Your task to perform on an android device: Open calendar and show me the second week of next month Image 0: 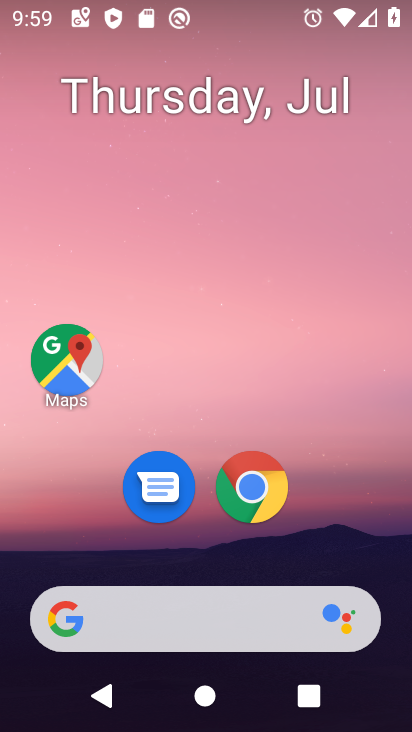
Step 0: drag from (247, 560) to (256, 146)
Your task to perform on an android device: Open calendar and show me the second week of next month Image 1: 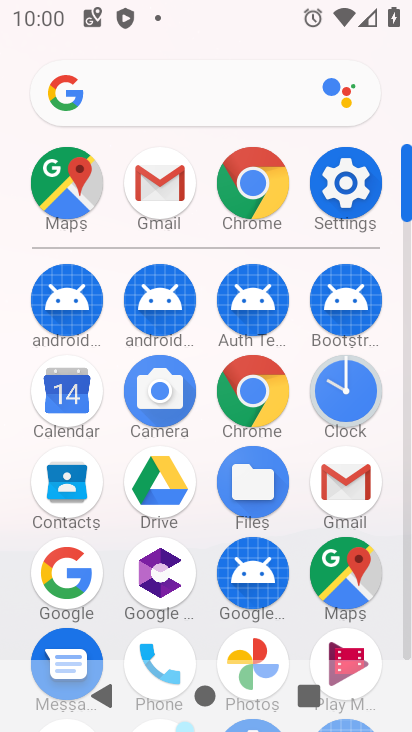
Step 1: click (73, 399)
Your task to perform on an android device: Open calendar and show me the second week of next month Image 2: 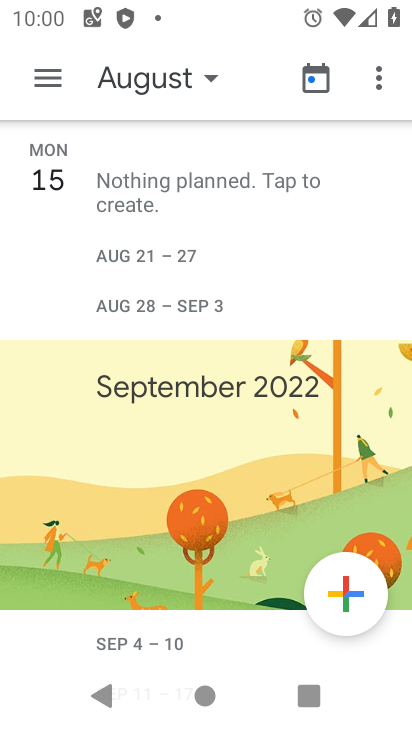
Step 2: click (202, 87)
Your task to perform on an android device: Open calendar and show me the second week of next month Image 3: 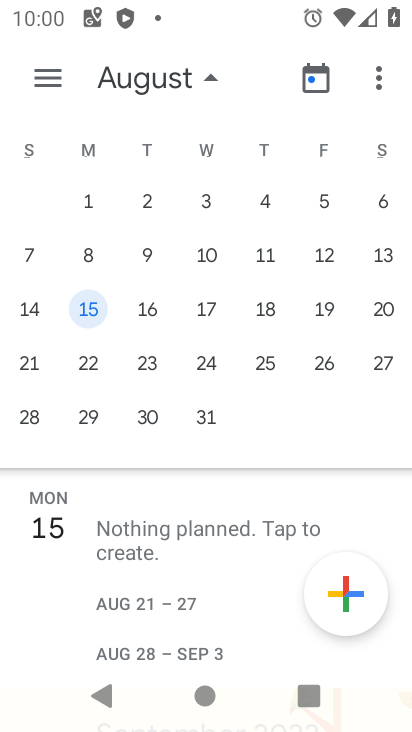
Step 3: click (85, 263)
Your task to perform on an android device: Open calendar and show me the second week of next month Image 4: 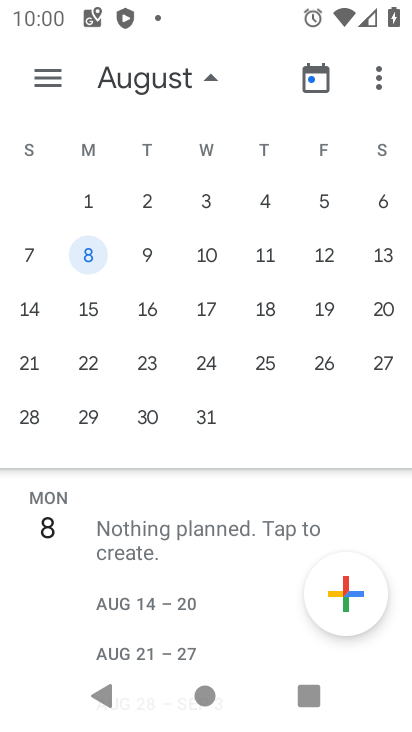
Step 4: task complete